Your task to perform on an android device: Open display settings Image 0: 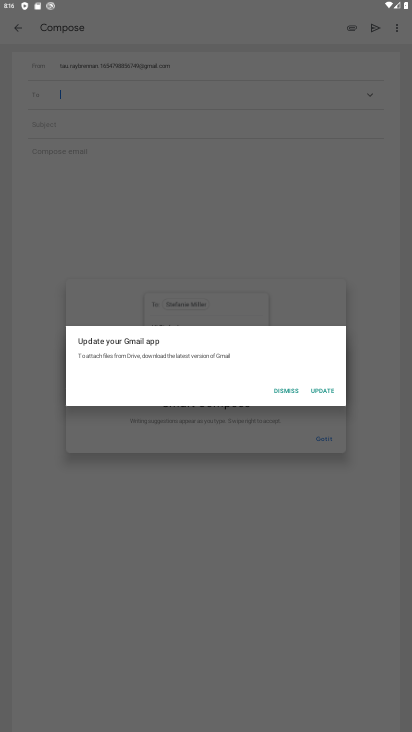
Step 0: press home button
Your task to perform on an android device: Open display settings Image 1: 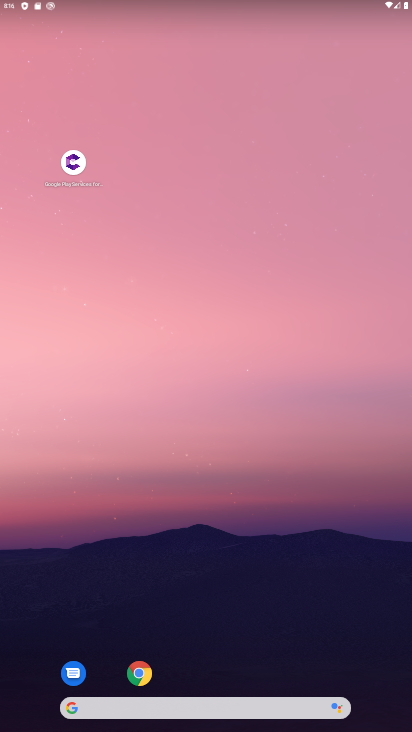
Step 1: drag from (325, 669) to (359, 0)
Your task to perform on an android device: Open display settings Image 2: 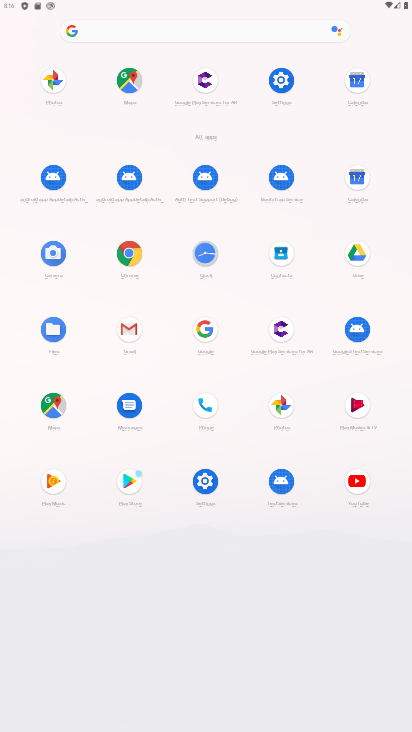
Step 2: click (285, 72)
Your task to perform on an android device: Open display settings Image 3: 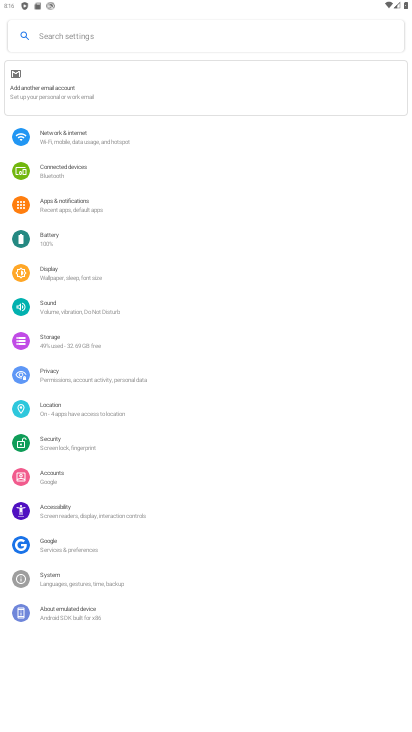
Step 3: click (70, 280)
Your task to perform on an android device: Open display settings Image 4: 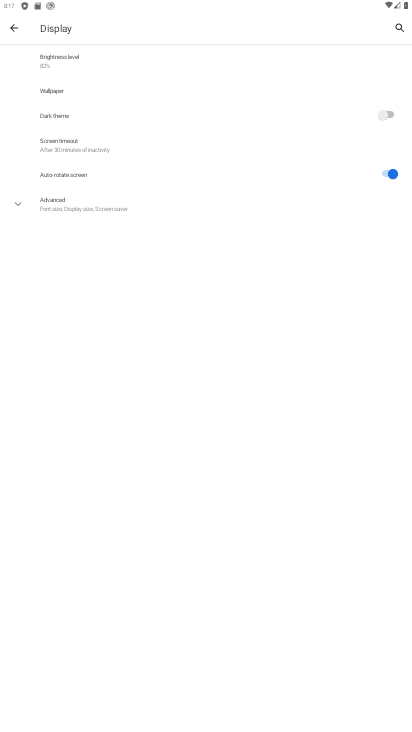
Step 4: task complete